Your task to perform on an android device: Open accessibility settings Image 0: 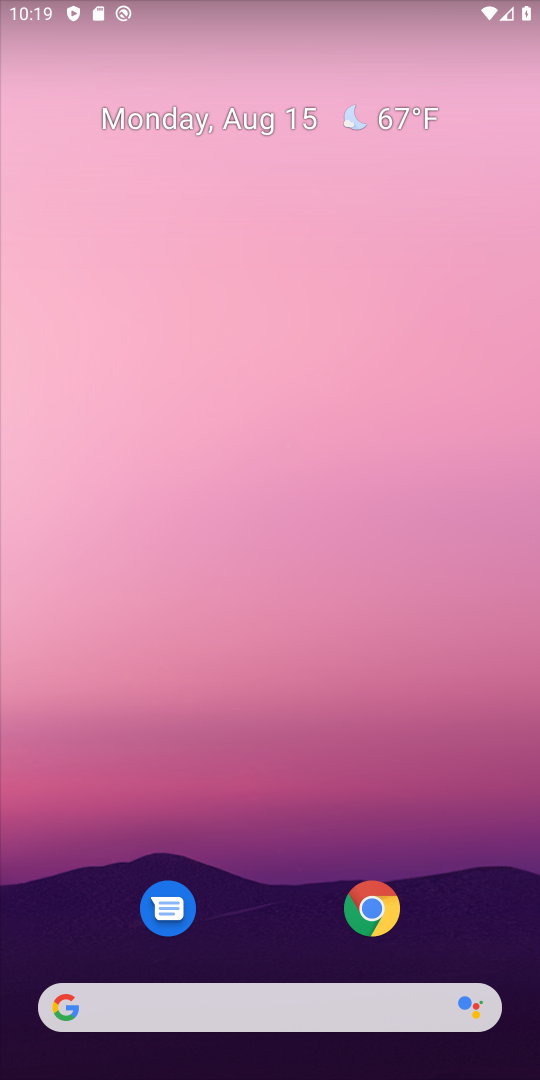
Step 0: drag from (248, 929) to (340, 231)
Your task to perform on an android device: Open accessibility settings Image 1: 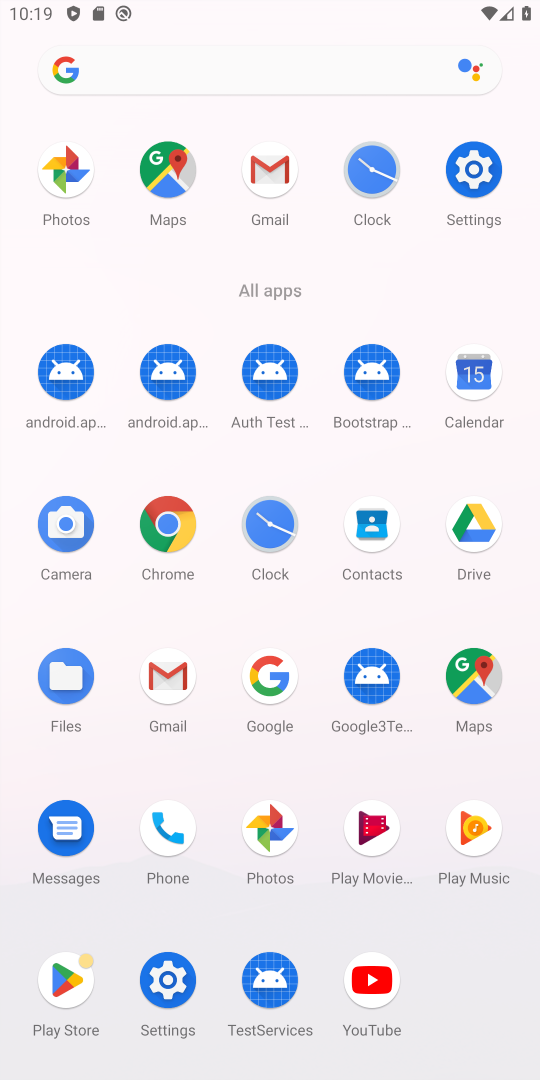
Step 1: click (458, 159)
Your task to perform on an android device: Open accessibility settings Image 2: 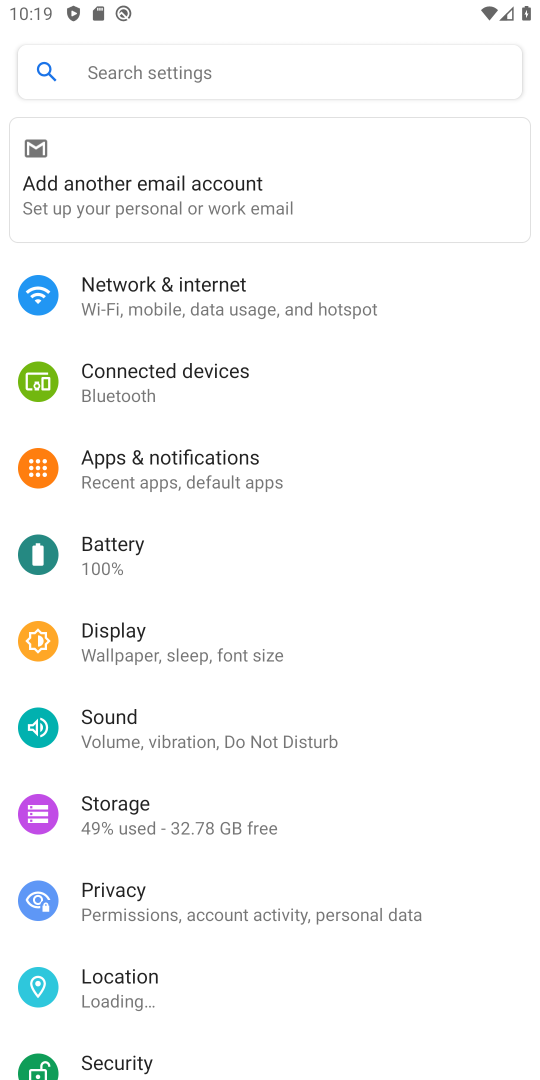
Step 2: drag from (168, 1033) to (379, 219)
Your task to perform on an android device: Open accessibility settings Image 3: 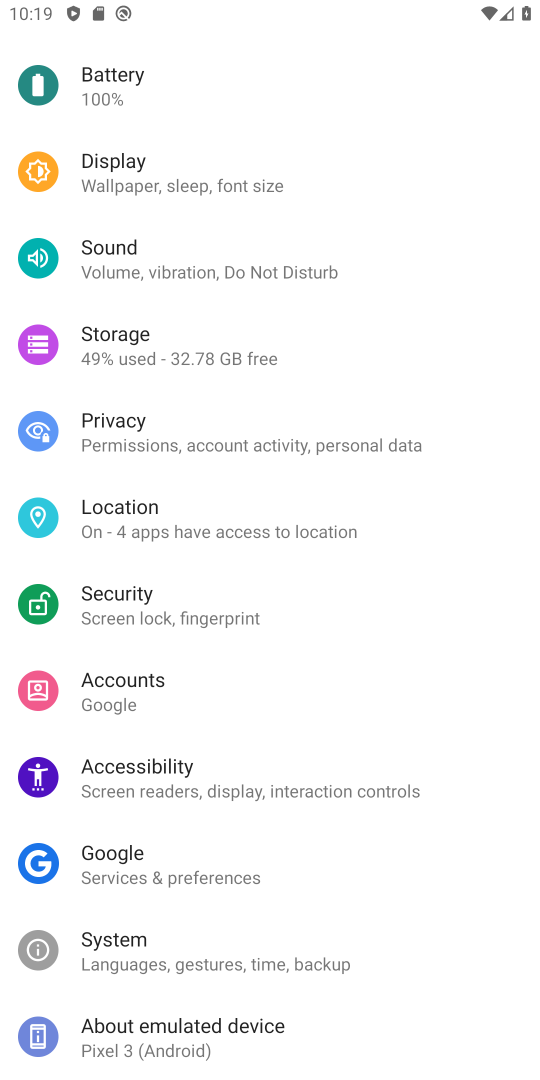
Step 3: click (169, 775)
Your task to perform on an android device: Open accessibility settings Image 4: 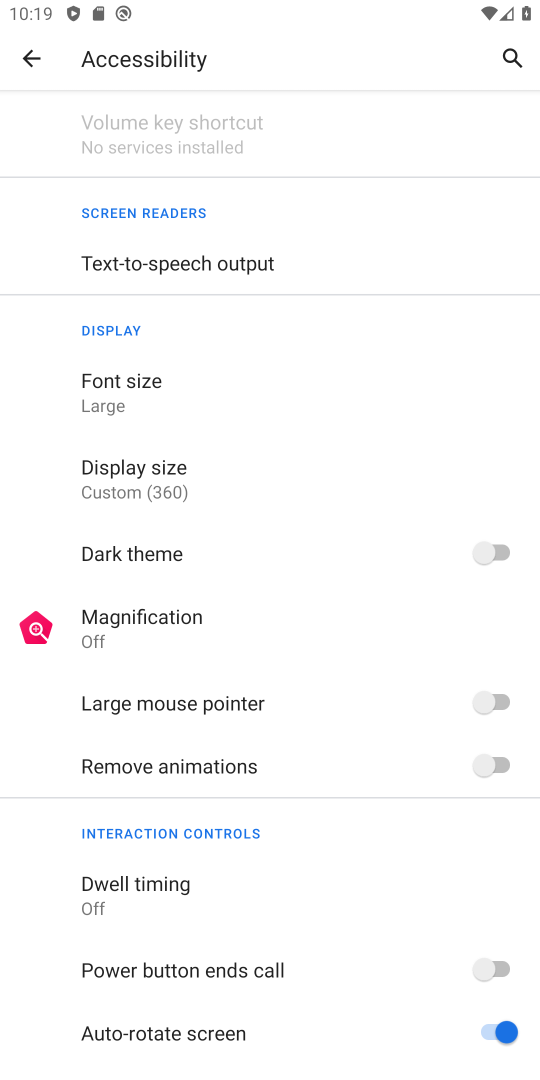
Step 4: task complete